Your task to perform on an android device: Is it going to rain today? Image 0: 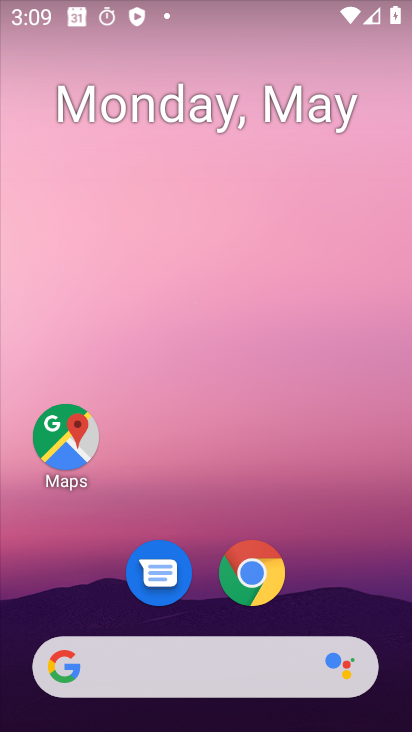
Step 0: drag from (325, 687) to (204, 0)
Your task to perform on an android device: Is it going to rain today? Image 1: 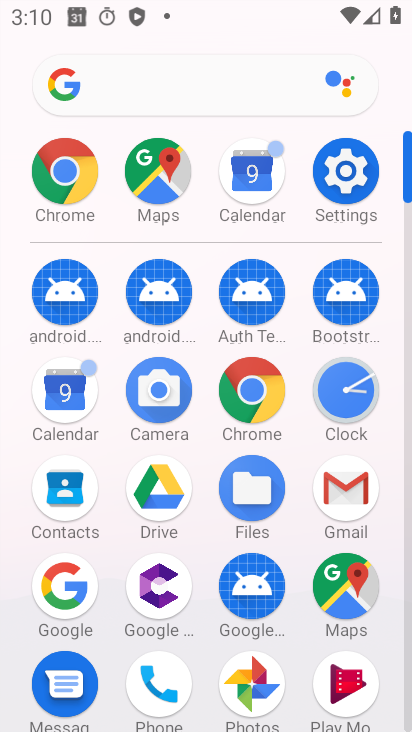
Step 1: press back button
Your task to perform on an android device: Is it going to rain today? Image 2: 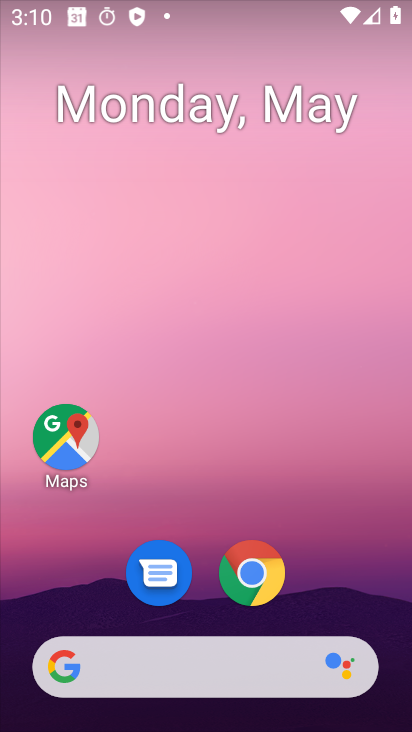
Step 2: drag from (9, 261) to (400, 160)
Your task to perform on an android device: Is it going to rain today? Image 3: 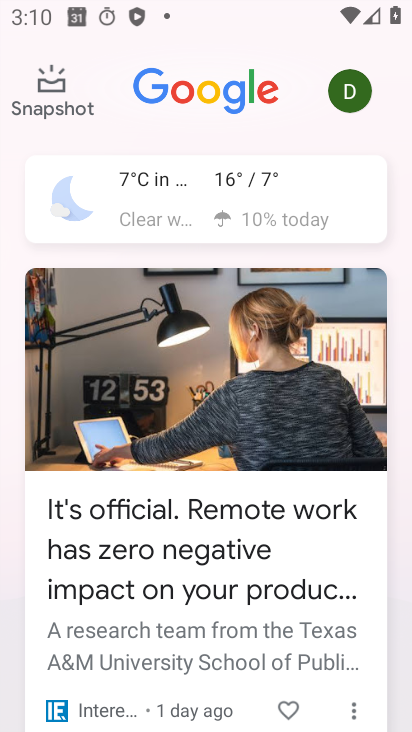
Step 3: click (209, 211)
Your task to perform on an android device: Is it going to rain today? Image 4: 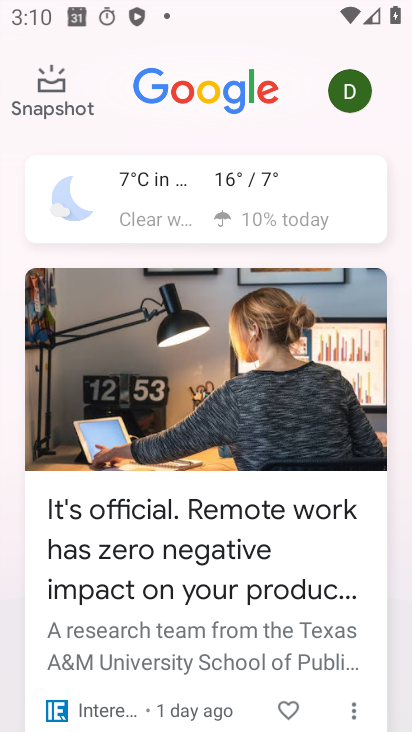
Step 4: click (210, 212)
Your task to perform on an android device: Is it going to rain today? Image 5: 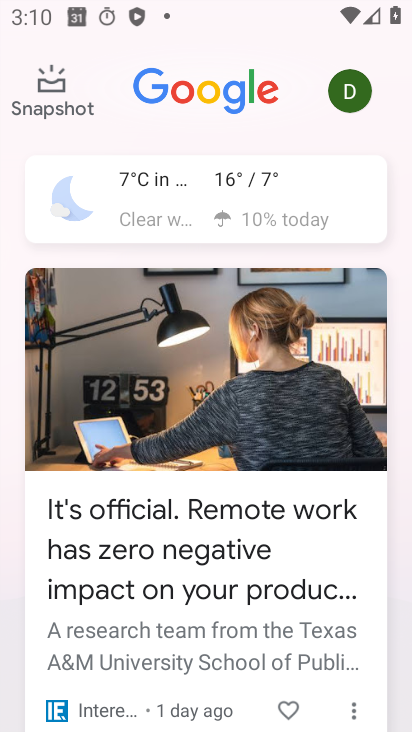
Step 5: click (210, 212)
Your task to perform on an android device: Is it going to rain today? Image 6: 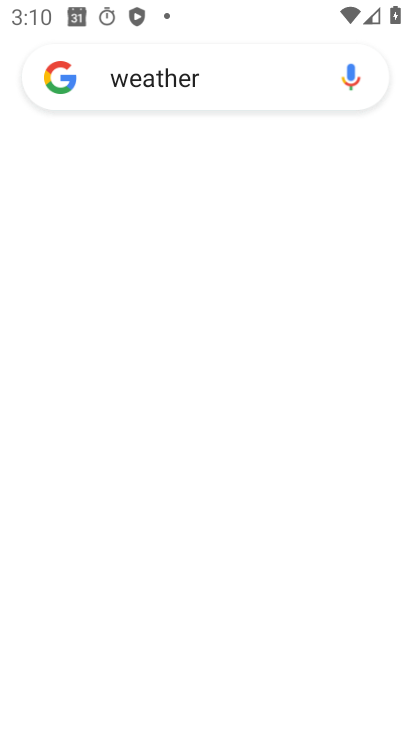
Step 6: click (210, 212)
Your task to perform on an android device: Is it going to rain today? Image 7: 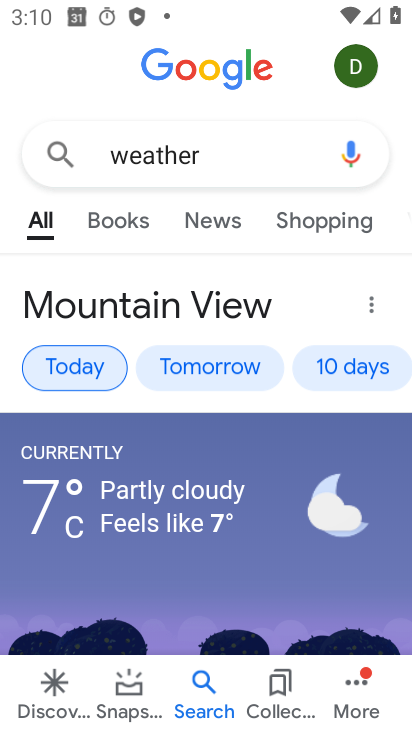
Step 7: click (217, 372)
Your task to perform on an android device: Is it going to rain today? Image 8: 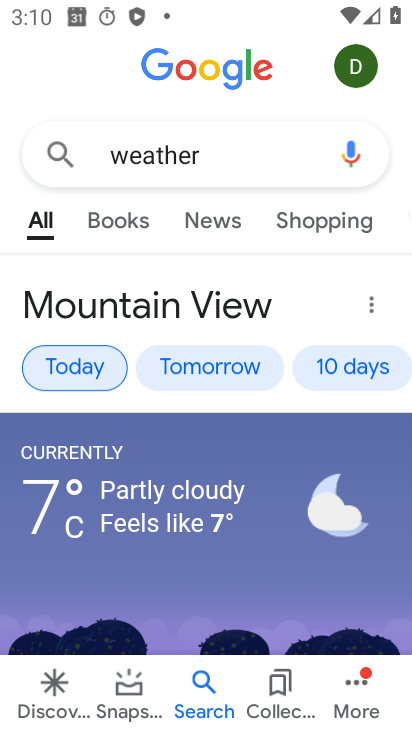
Step 8: click (218, 371)
Your task to perform on an android device: Is it going to rain today? Image 9: 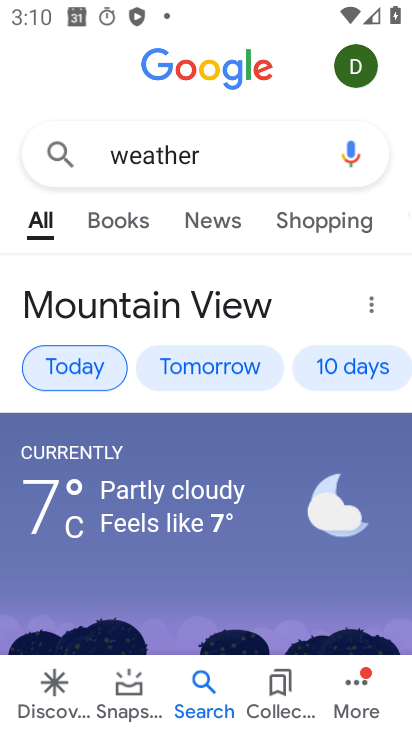
Step 9: click (223, 369)
Your task to perform on an android device: Is it going to rain today? Image 10: 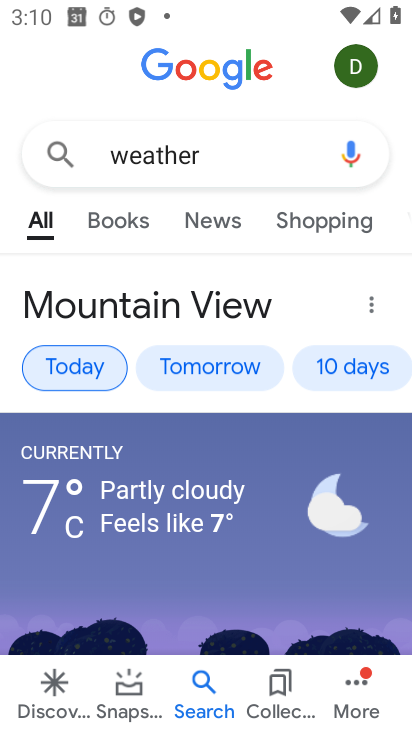
Step 10: click (223, 369)
Your task to perform on an android device: Is it going to rain today? Image 11: 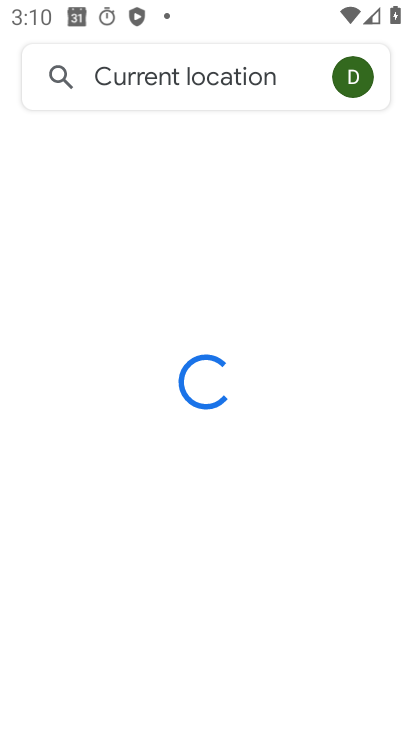
Step 11: click (223, 369)
Your task to perform on an android device: Is it going to rain today? Image 12: 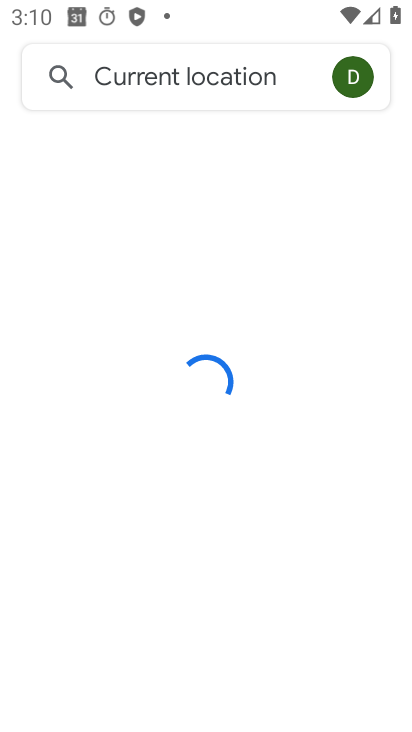
Step 12: click (223, 369)
Your task to perform on an android device: Is it going to rain today? Image 13: 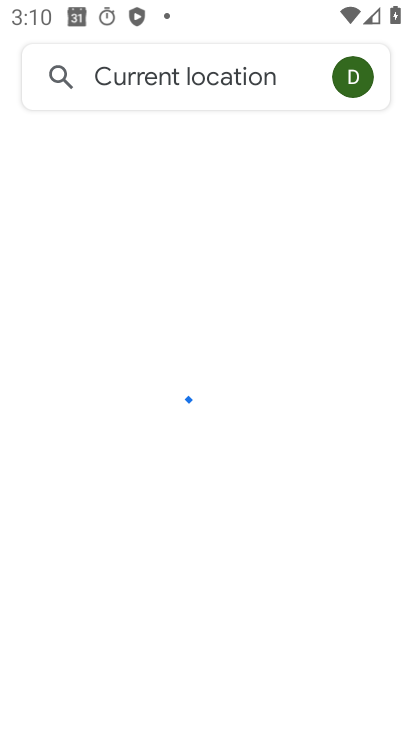
Step 13: click (234, 366)
Your task to perform on an android device: Is it going to rain today? Image 14: 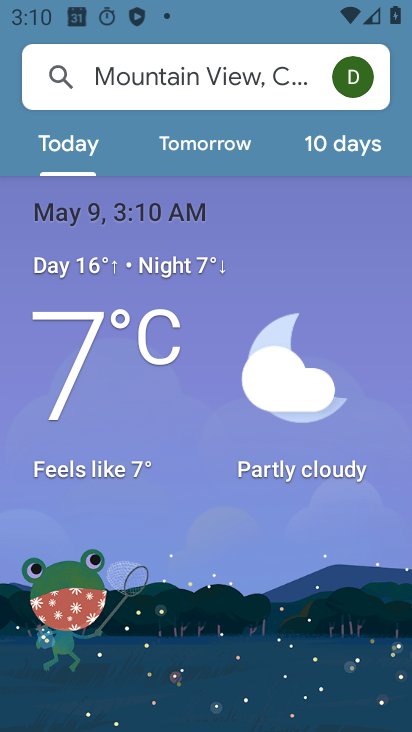
Step 14: task complete